Your task to perform on an android device: Open Wikipedia Image 0: 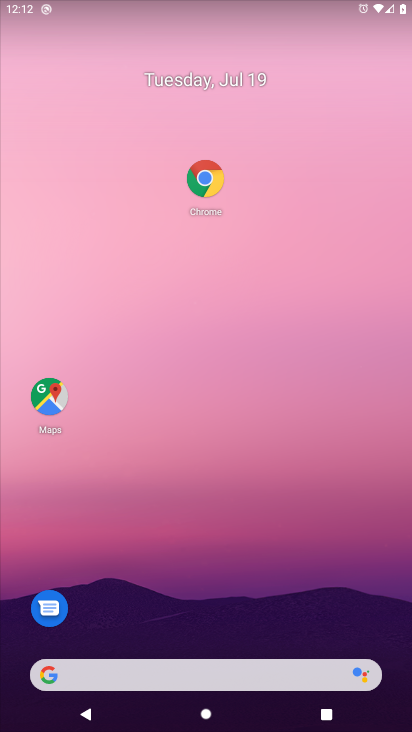
Step 0: click (116, 678)
Your task to perform on an android device: Open Wikipedia Image 1: 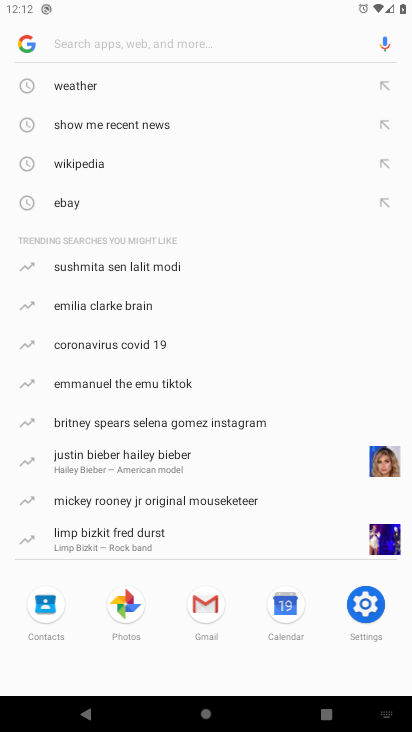
Step 1: type "Wikipedia"
Your task to perform on an android device: Open Wikipedia Image 2: 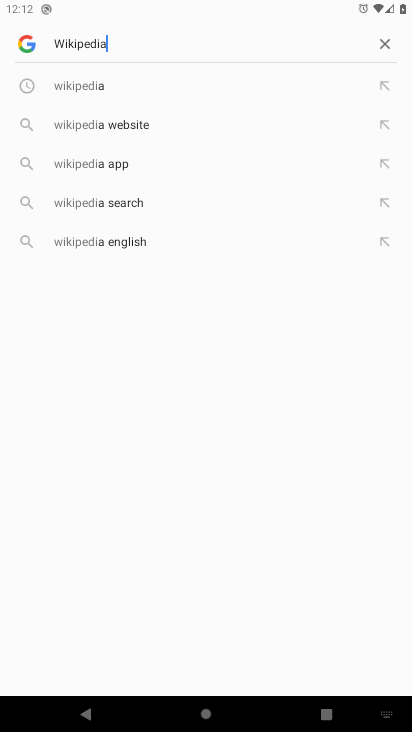
Step 2: type ""
Your task to perform on an android device: Open Wikipedia Image 3: 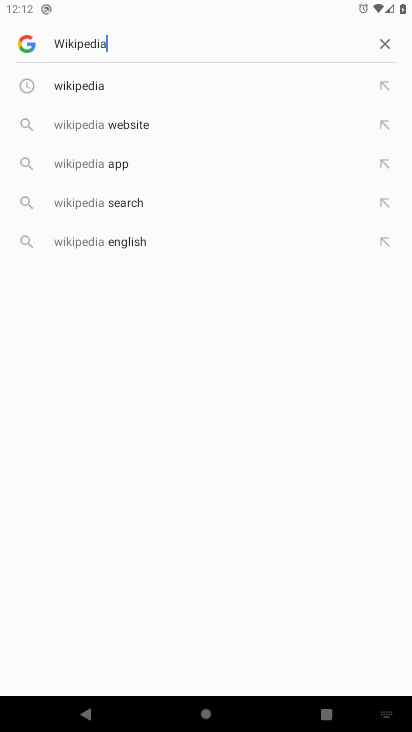
Step 3: click (108, 82)
Your task to perform on an android device: Open Wikipedia Image 4: 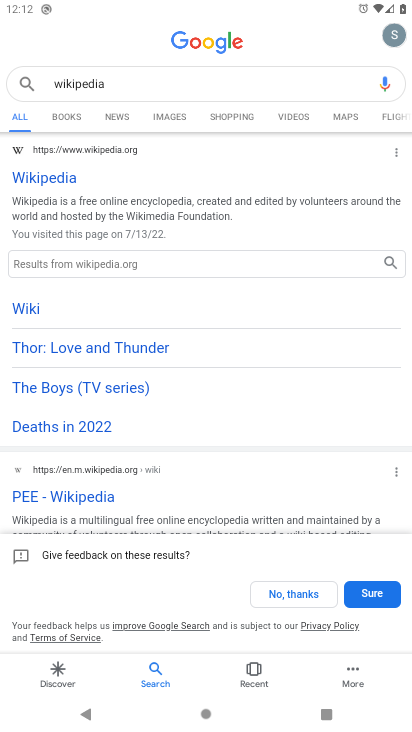
Step 4: task complete